Your task to perform on an android device: Find coffee shops on Maps Image 0: 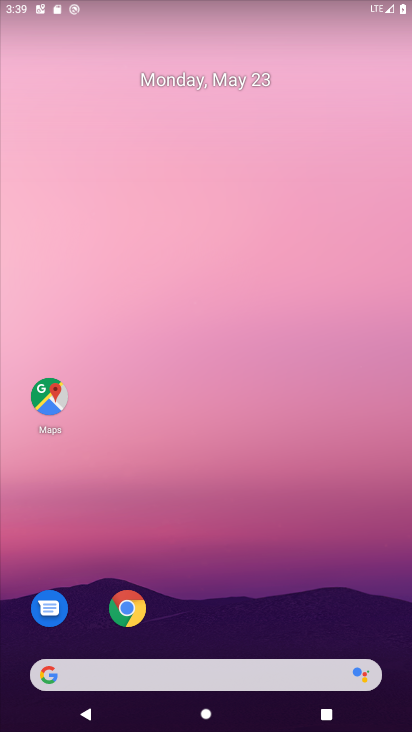
Step 0: click (53, 399)
Your task to perform on an android device: Find coffee shops on Maps Image 1: 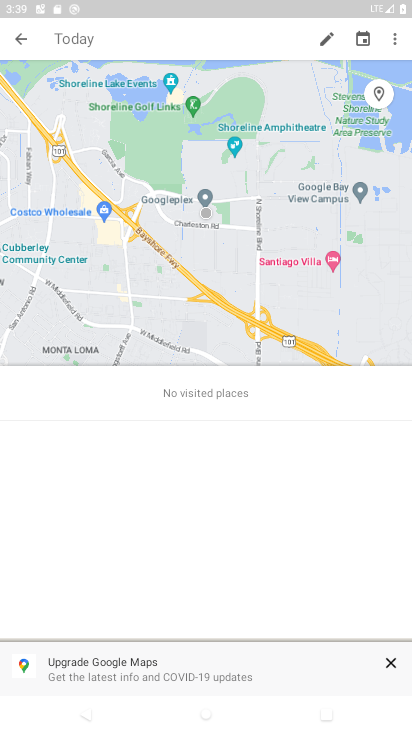
Step 1: click (13, 32)
Your task to perform on an android device: Find coffee shops on Maps Image 2: 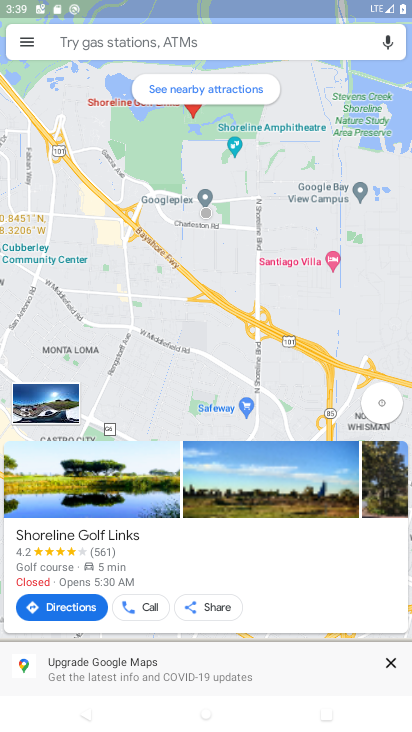
Step 2: click (142, 40)
Your task to perform on an android device: Find coffee shops on Maps Image 3: 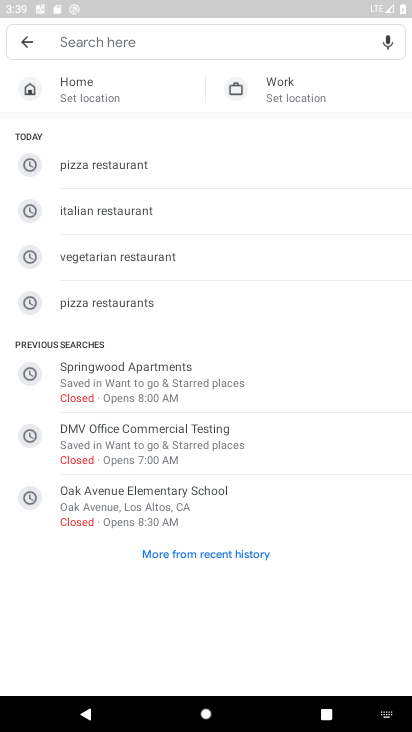
Step 3: type "coffee shops "
Your task to perform on an android device: Find coffee shops on Maps Image 4: 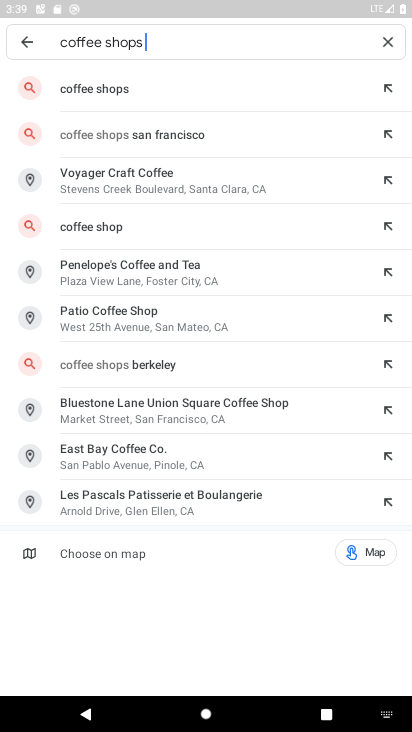
Step 4: click (125, 96)
Your task to perform on an android device: Find coffee shops on Maps Image 5: 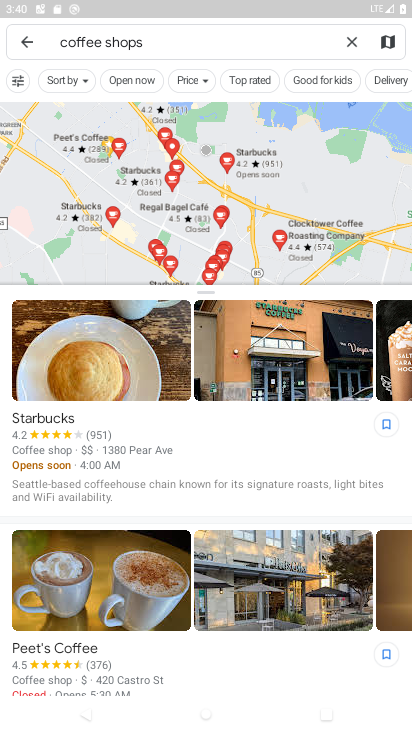
Step 5: task complete